Your task to perform on an android device: turn on translation in the chrome app Image 0: 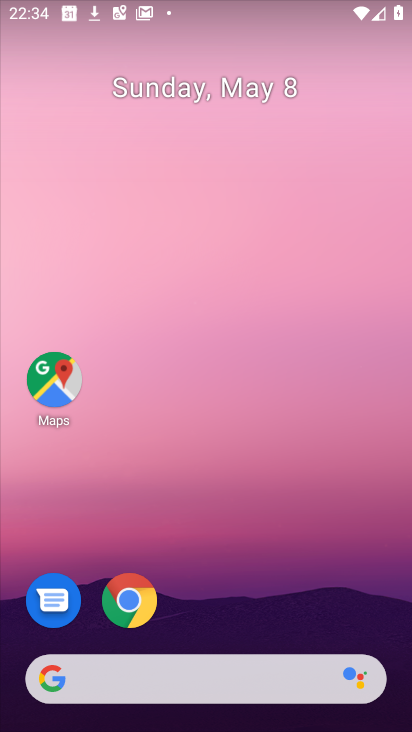
Step 0: drag from (199, 702) to (247, 275)
Your task to perform on an android device: turn on translation in the chrome app Image 1: 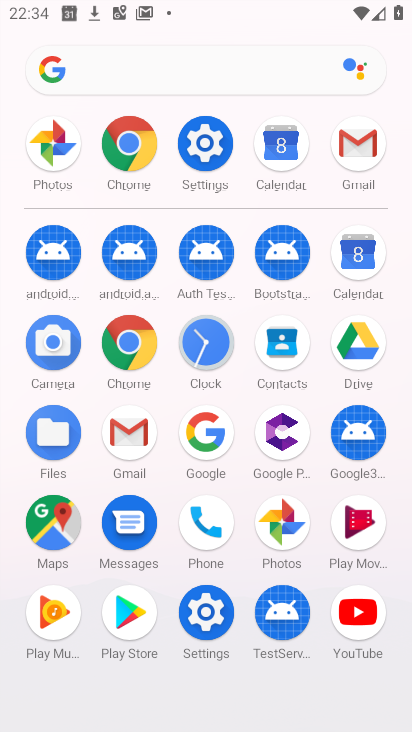
Step 1: click (131, 161)
Your task to perform on an android device: turn on translation in the chrome app Image 2: 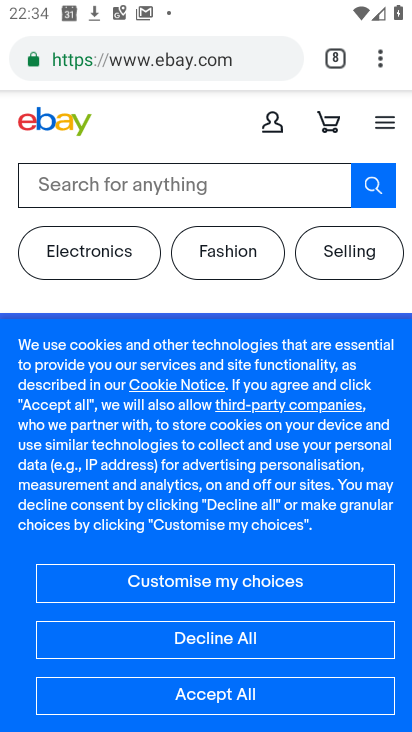
Step 2: click (375, 70)
Your task to perform on an android device: turn on translation in the chrome app Image 3: 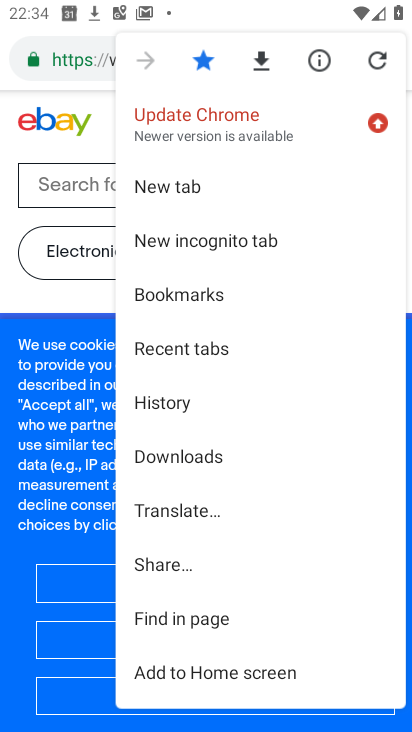
Step 3: drag from (219, 598) to (234, 361)
Your task to perform on an android device: turn on translation in the chrome app Image 4: 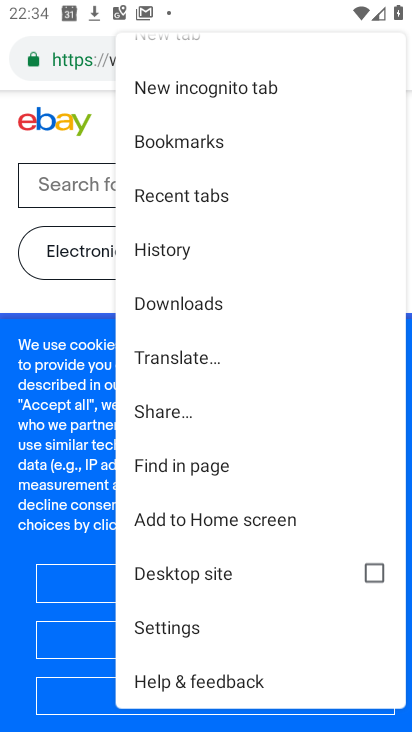
Step 4: click (172, 633)
Your task to perform on an android device: turn on translation in the chrome app Image 5: 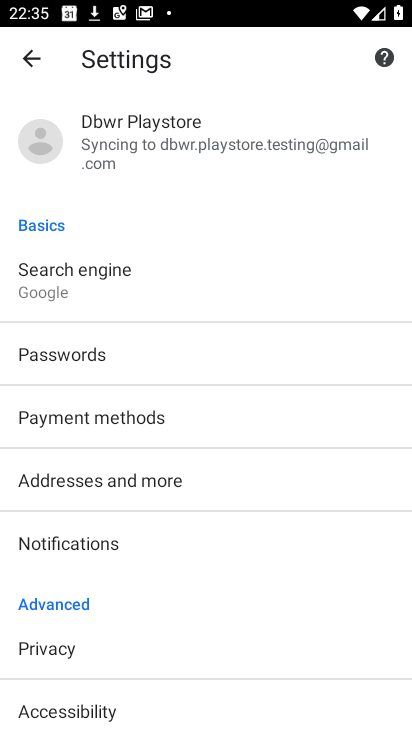
Step 5: drag from (155, 609) to (160, 487)
Your task to perform on an android device: turn on translation in the chrome app Image 6: 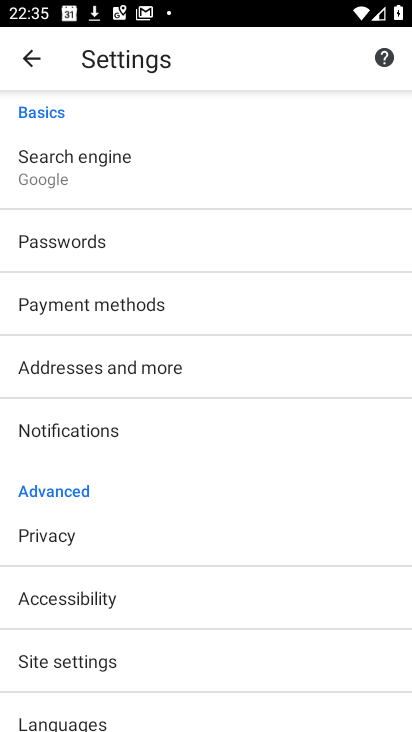
Step 6: click (72, 712)
Your task to perform on an android device: turn on translation in the chrome app Image 7: 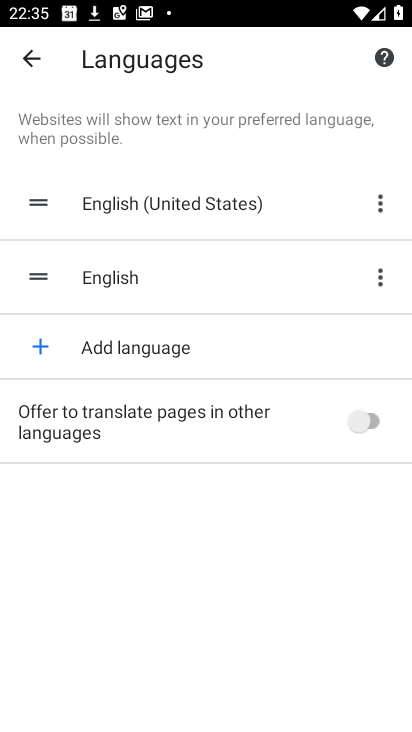
Step 7: click (278, 434)
Your task to perform on an android device: turn on translation in the chrome app Image 8: 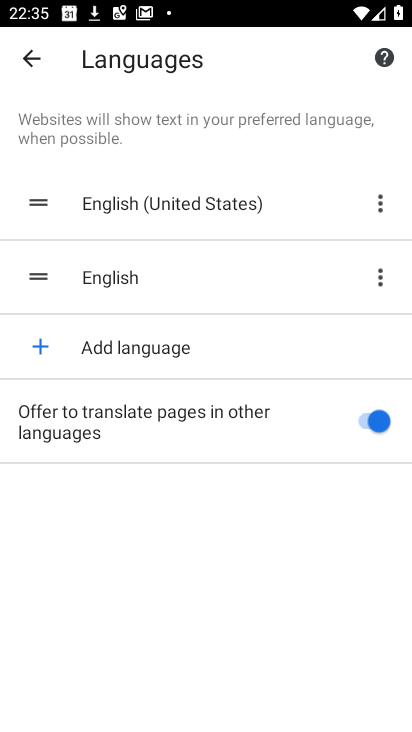
Step 8: task complete